Your task to perform on an android device: see tabs open on other devices in the chrome app Image 0: 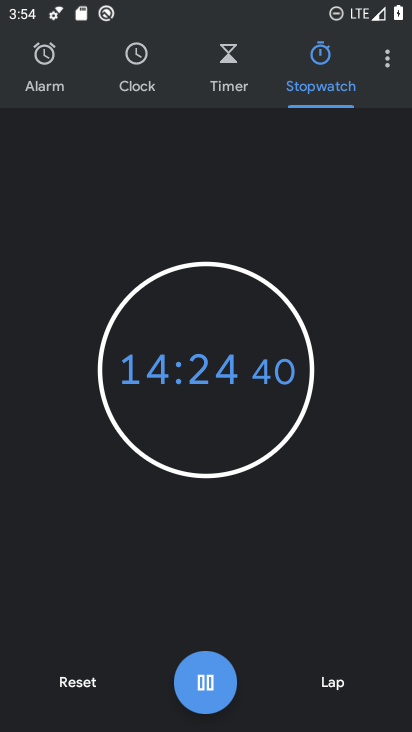
Step 0: click (101, 692)
Your task to perform on an android device: see tabs open on other devices in the chrome app Image 1: 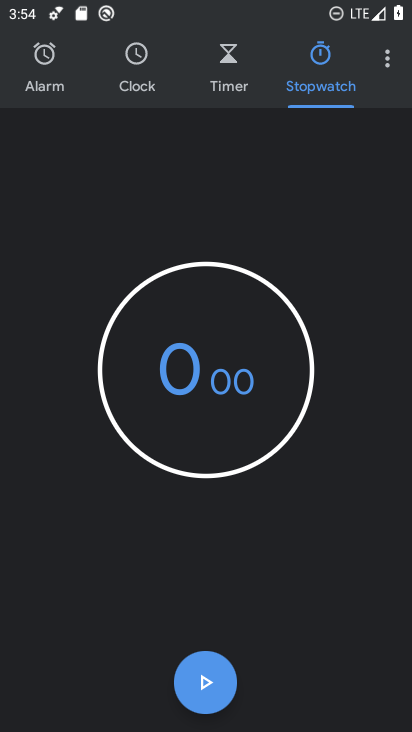
Step 1: press home button
Your task to perform on an android device: see tabs open on other devices in the chrome app Image 2: 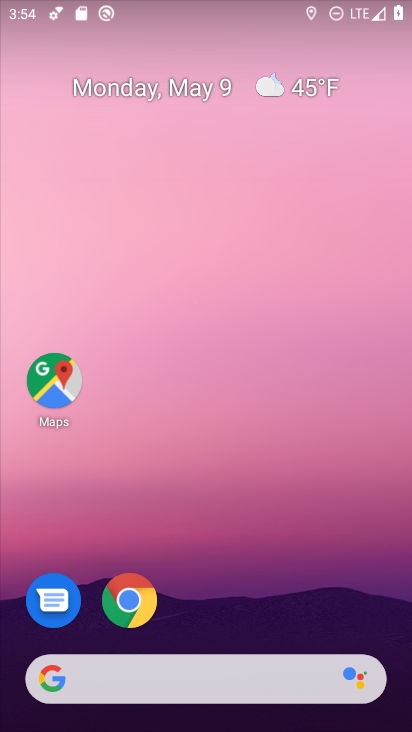
Step 2: click (140, 590)
Your task to perform on an android device: see tabs open on other devices in the chrome app Image 3: 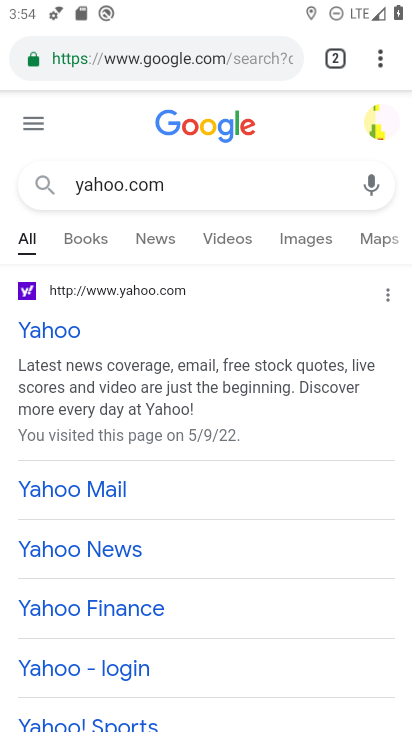
Step 3: click (376, 51)
Your task to perform on an android device: see tabs open on other devices in the chrome app Image 4: 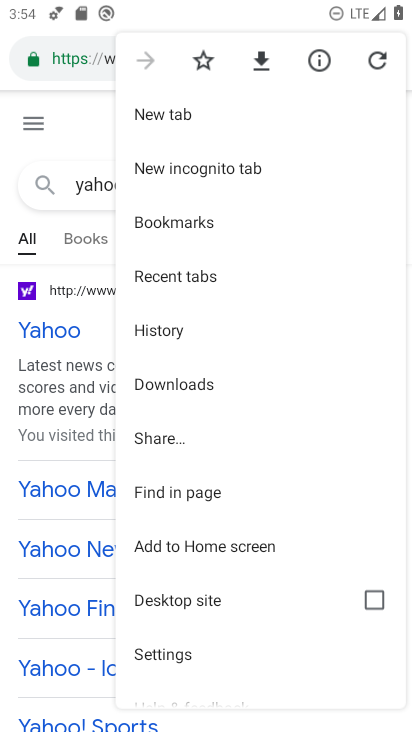
Step 4: click (214, 277)
Your task to perform on an android device: see tabs open on other devices in the chrome app Image 5: 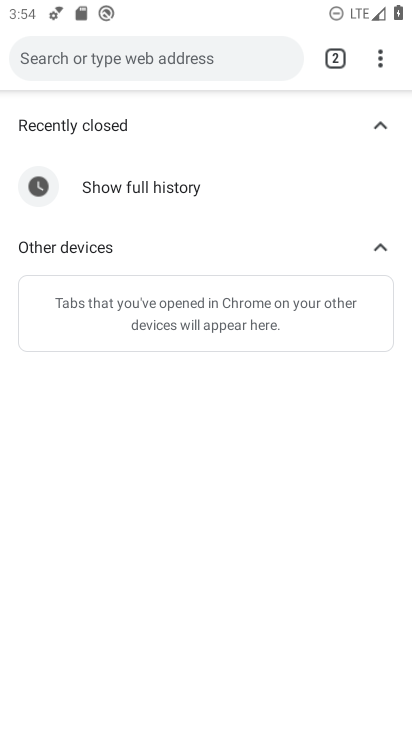
Step 5: task complete